Your task to perform on an android device: Open notification settings Image 0: 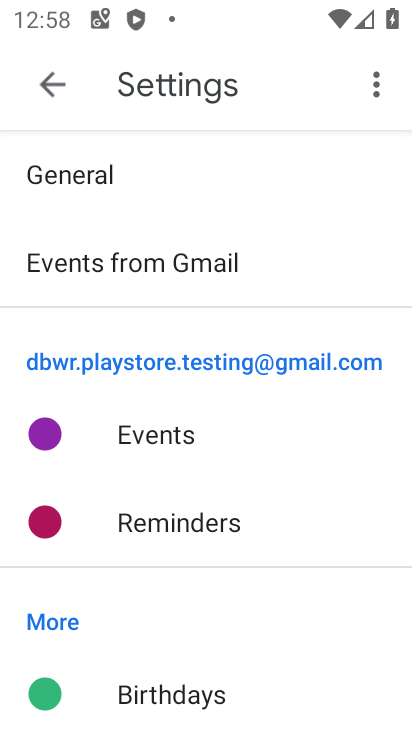
Step 0: press home button
Your task to perform on an android device: Open notification settings Image 1: 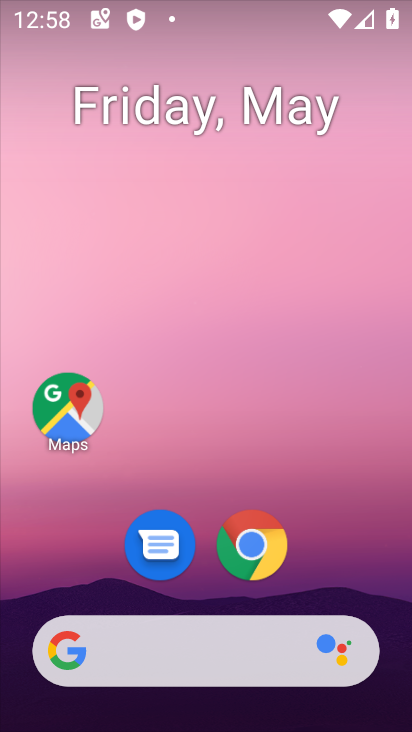
Step 1: drag from (321, 552) to (287, 4)
Your task to perform on an android device: Open notification settings Image 2: 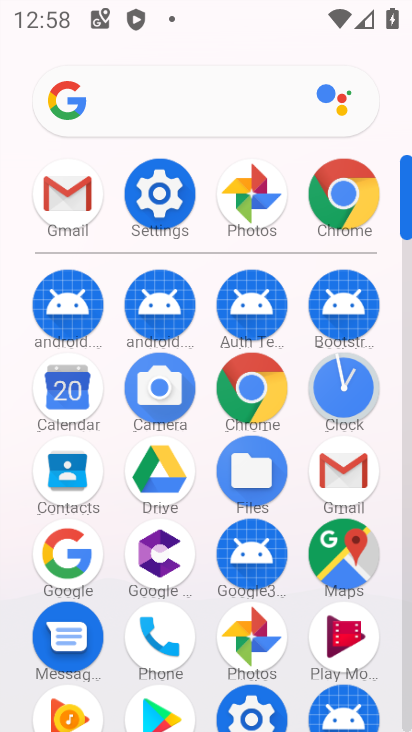
Step 2: click (152, 194)
Your task to perform on an android device: Open notification settings Image 3: 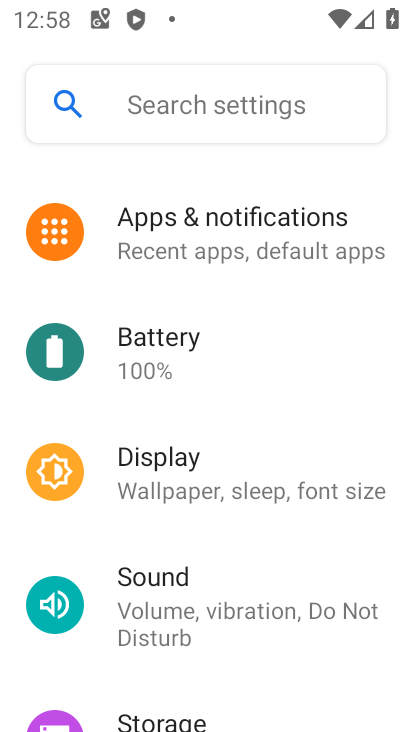
Step 3: click (274, 248)
Your task to perform on an android device: Open notification settings Image 4: 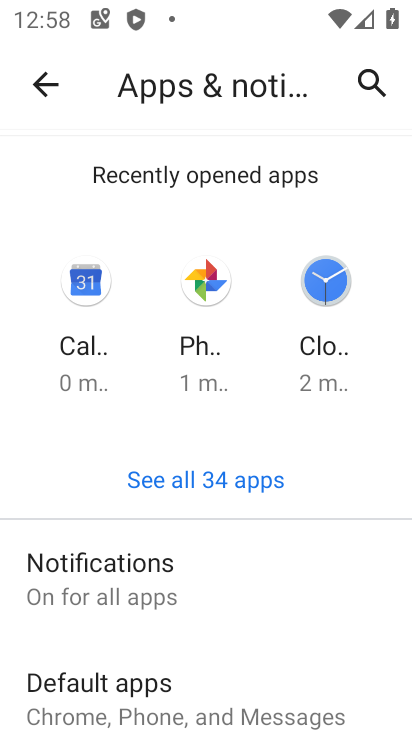
Step 4: task complete